Your task to perform on an android device: change timer sound Image 0: 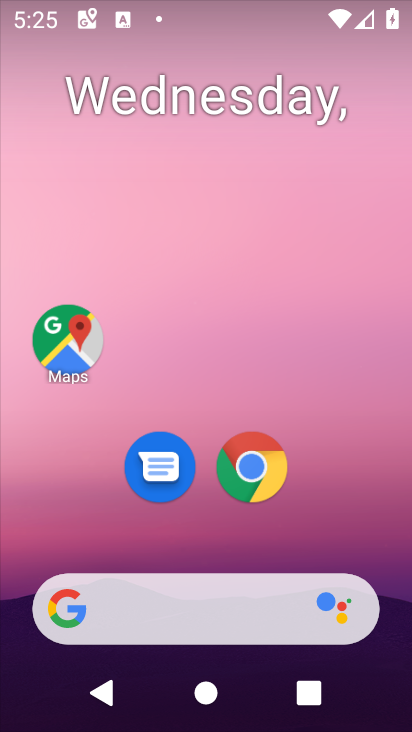
Step 0: drag from (267, 529) to (219, 3)
Your task to perform on an android device: change timer sound Image 1: 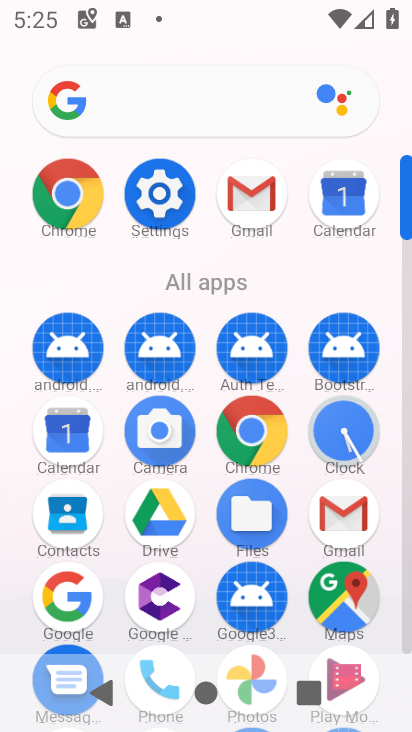
Step 1: click (339, 414)
Your task to perform on an android device: change timer sound Image 2: 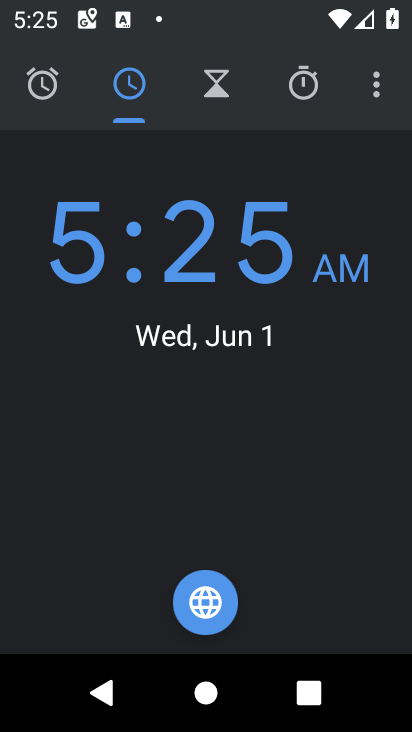
Step 2: click (381, 91)
Your task to perform on an android device: change timer sound Image 3: 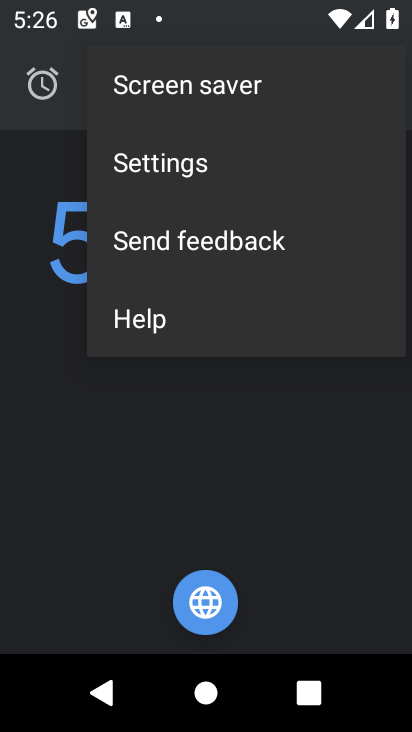
Step 3: click (210, 164)
Your task to perform on an android device: change timer sound Image 4: 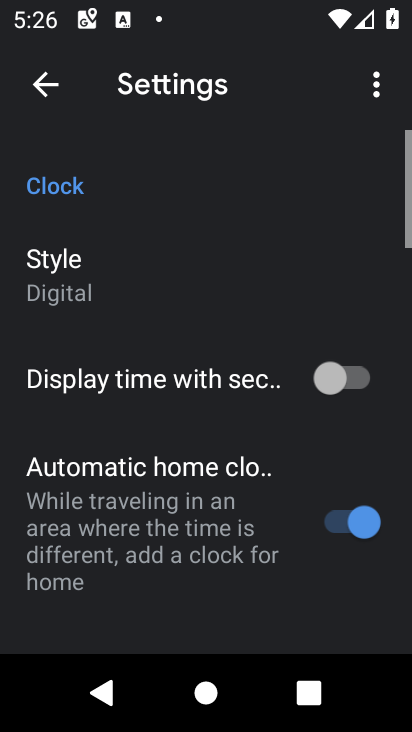
Step 4: drag from (280, 586) to (210, 14)
Your task to perform on an android device: change timer sound Image 5: 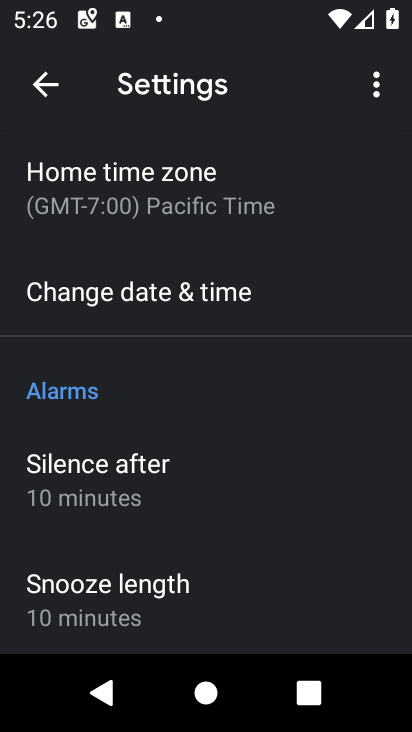
Step 5: drag from (212, 574) to (188, 181)
Your task to perform on an android device: change timer sound Image 6: 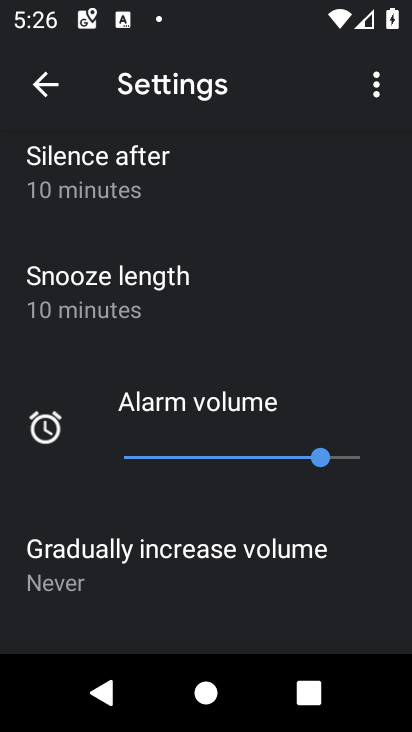
Step 6: drag from (224, 504) to (243, 34)
Your task to perform on an android device: change timer sound Image 7: 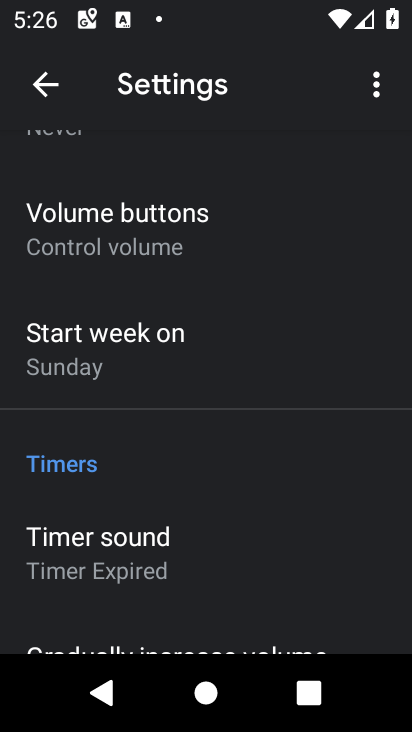
Step 7: click (160, 566)
Your task to perform on an android device: change timer sound Image 8: 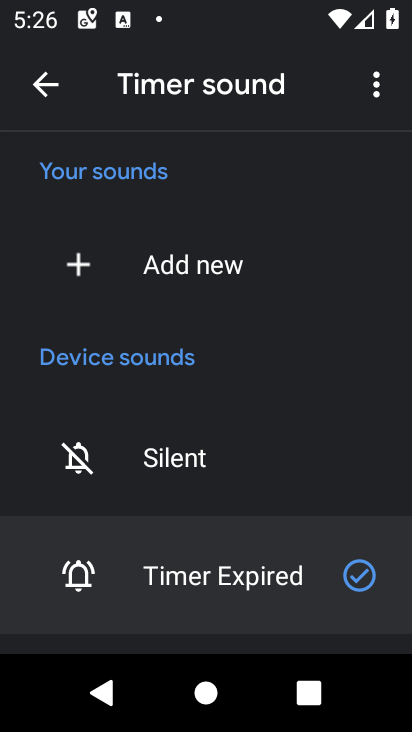
Step 8: drag from (266, 476) to (266, 174)
Your task to perform on an android device: change timer sound Image 9: 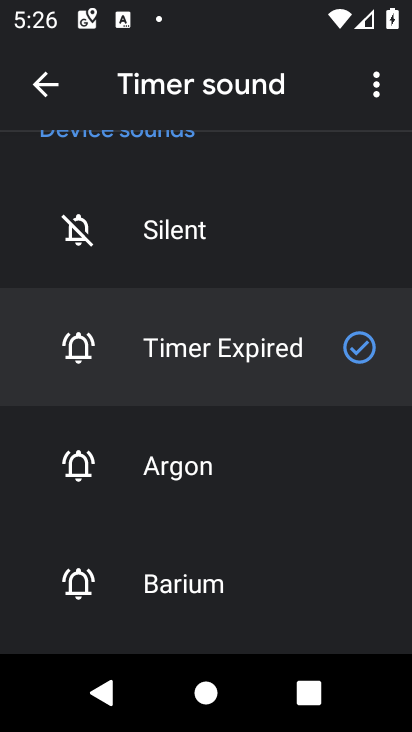
Step 9: click (222, 491)
Your task to perform on an android device: change timer sound Image 10: 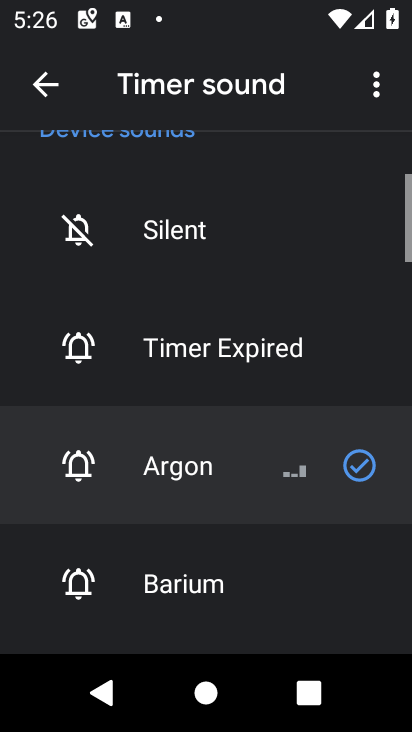
Step 10: task complete